Your task to perform on an android device: turn off location Image 0: 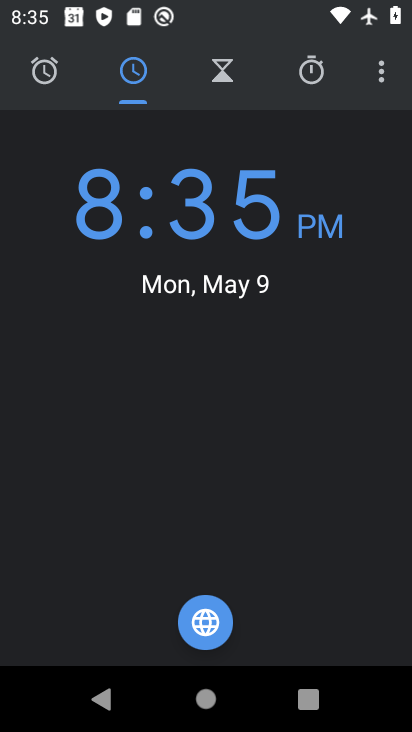
Step 0: press home button
Your task to perform on an android device: turn off location Image 1: 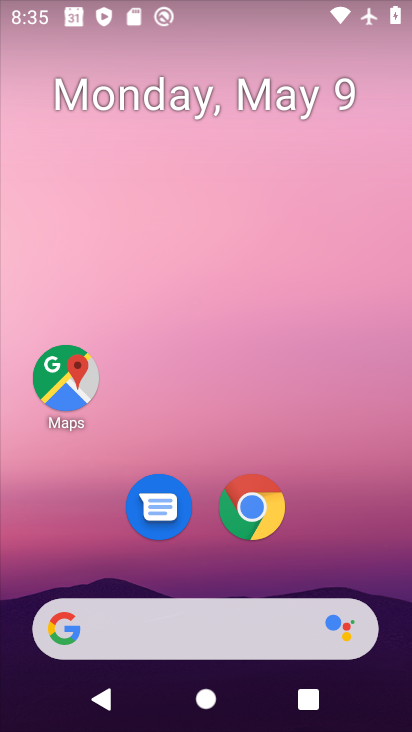
Step 1: drag from (206, 576) to (161, 0)
Your task to perform on an android device: turn off location Image 2: 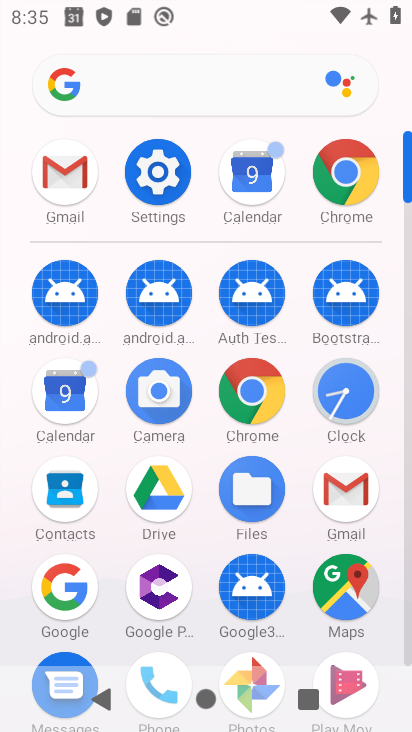
Step 2: click (163, 176)
Your task to perform on an android device: turn off location Image 3: 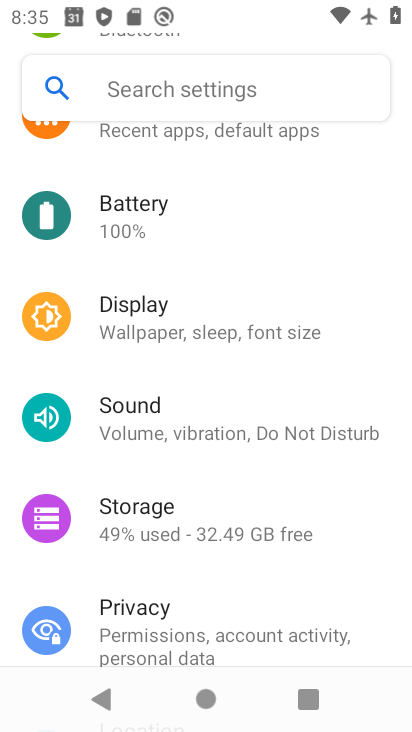
Step 3: drag from (183, 525) to (183, 149)
Your task to perform on an android device: turn off location Image 4: 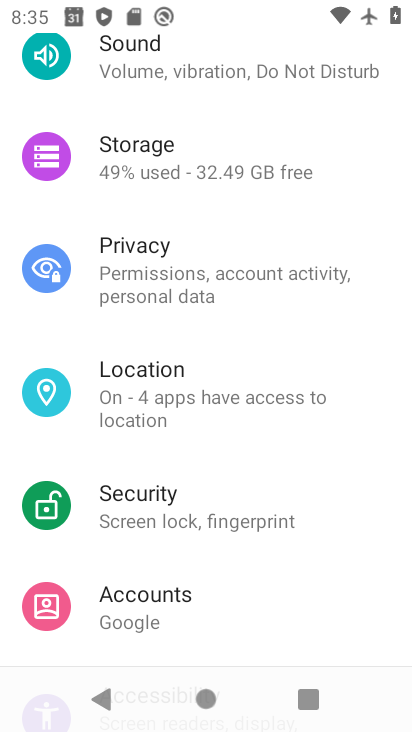
Step 4: click (169, 385)
Your task to perform on an android device: turn off location Image 5: 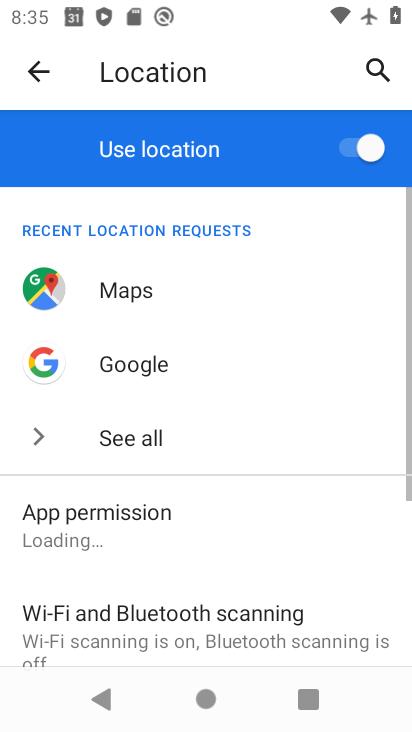
Step 5: click (381, 140)
Your task to perform on an android device: turn off location Image 6: 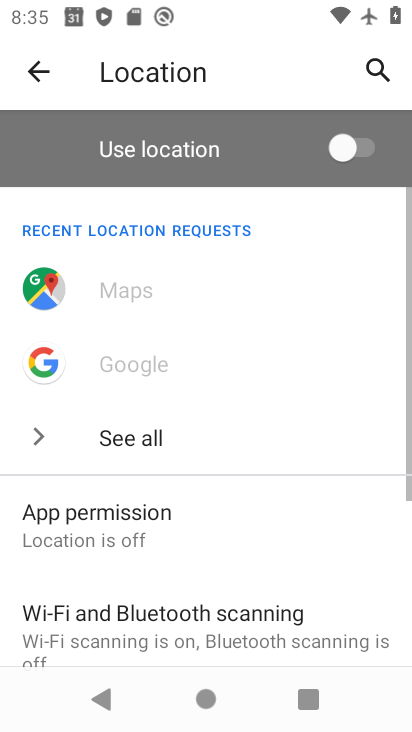
Step 6: task complete